Your task to perform on an android device: delete the emails in spam in the gmail app Image 0: 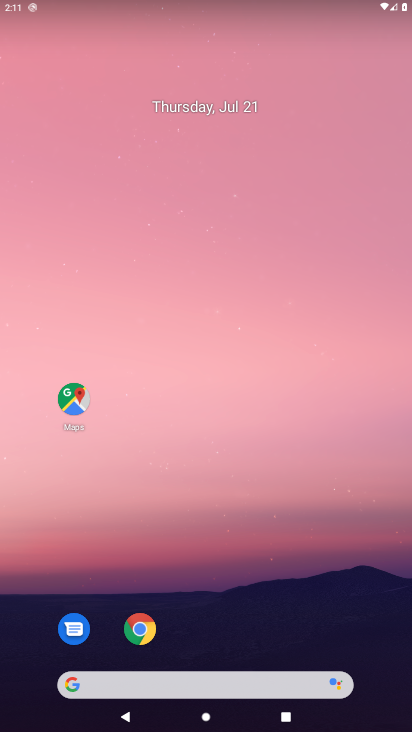
Step 0: drag from (35, 679) to (144, 194)
Your task to perform on an android device: delete the emails in spam in the gmail app Image 1: 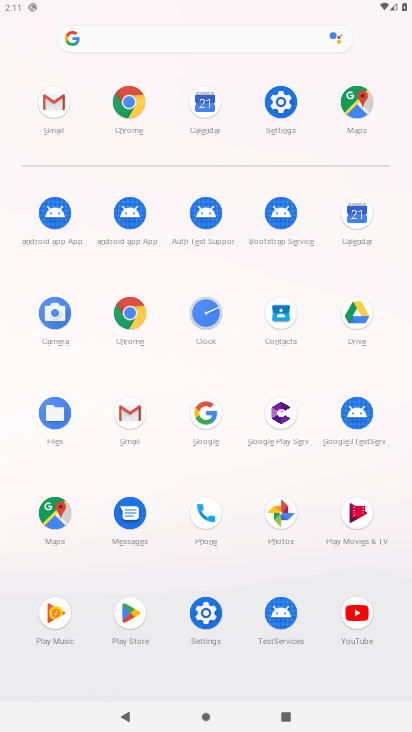
Step 1: click (133, 424)
Your task to perform on an android device: delete the emails in spam in the gmail app Image 2: 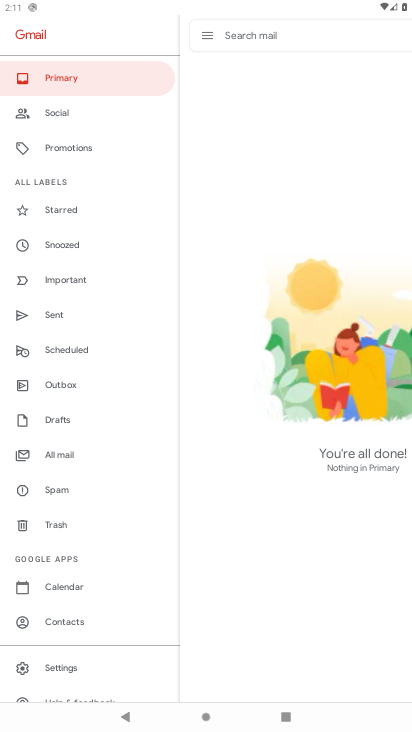
Step 2: click (44, 490)
Your task to perform on an android device: delete the emails in spam in the gmail app Image 3: 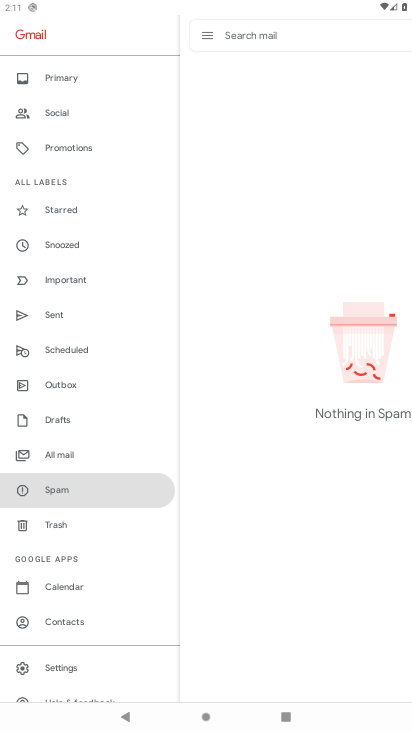
Step 3: task complete